Your task to perform on an android device: show emergency info Image 0: 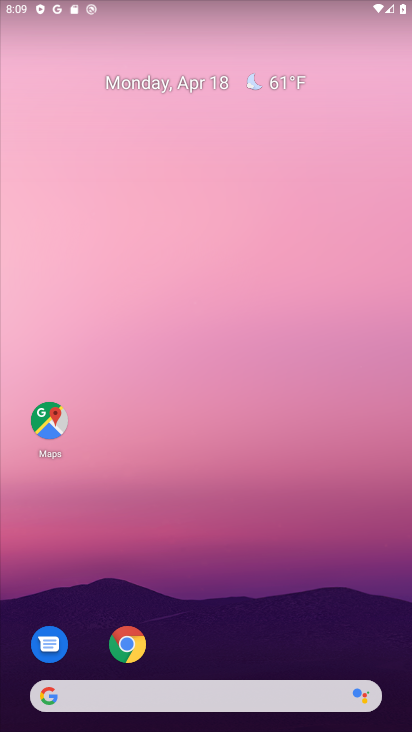
Step 0: drag from (192, 684) to (131, 109)
Your task to perform on an android device: show emergency info Image 1: 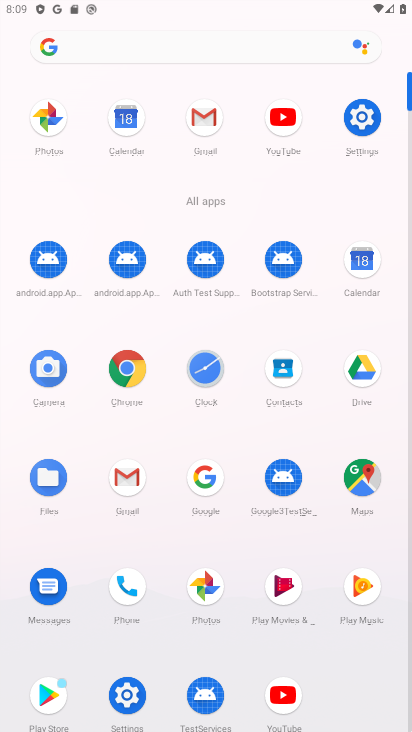
Step 1: click (358, 110)
Your task to perform on an android device: show emergency info Image 2: 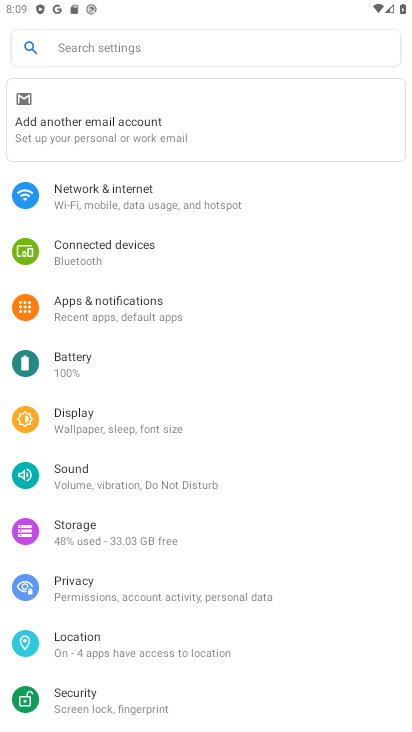
Step 2: drag from (162, 627) to (178, 53)
Your task to perform on an android device: show emergency info Image 3: 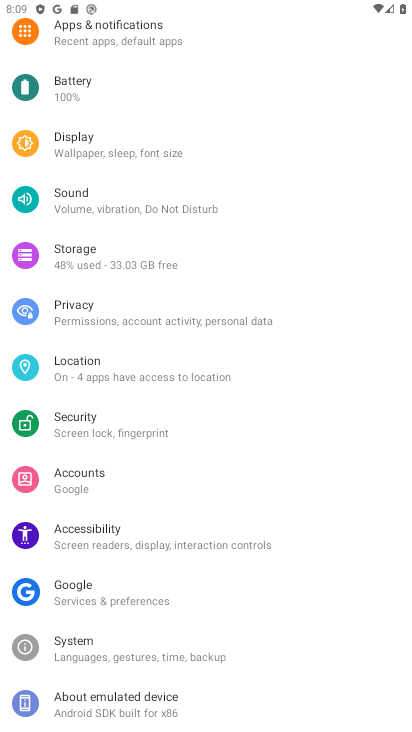
Step 3: click (124, 701)
Your task to perform on an android device: show emergency info Image 4: 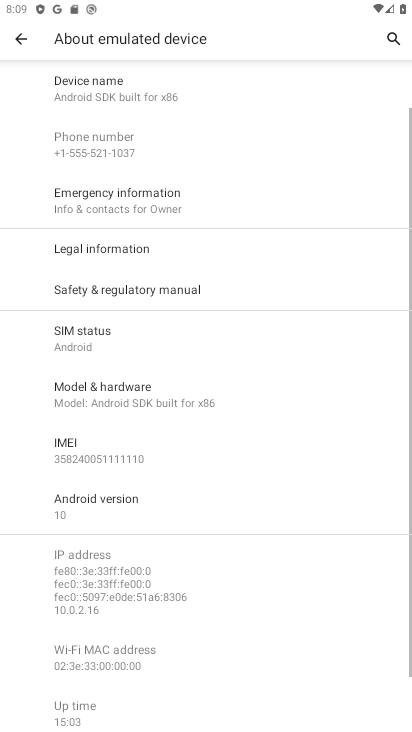
Step 4: click (168, 208)
Your task to perform on an android device: show emergency info Image 5: 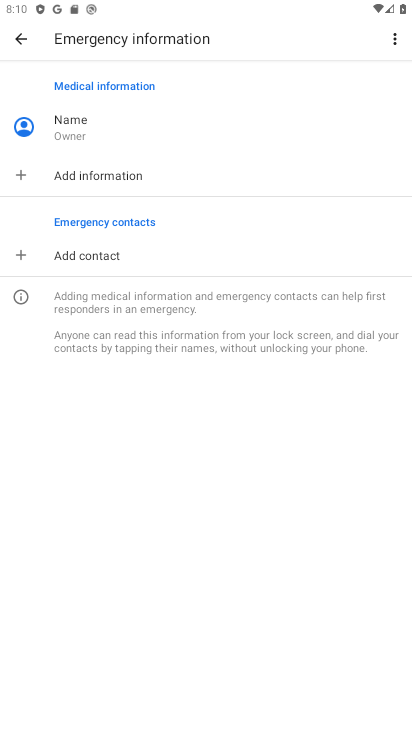
Step 5: task complete